Your task to perform on an android device: Go to network settings Image 0: 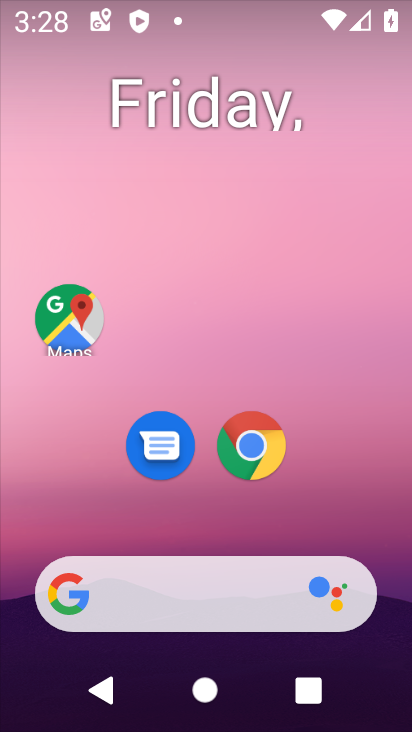
Step 0: click (250, 3)
Your task to perform on an android device: Go to network settings Image 1: 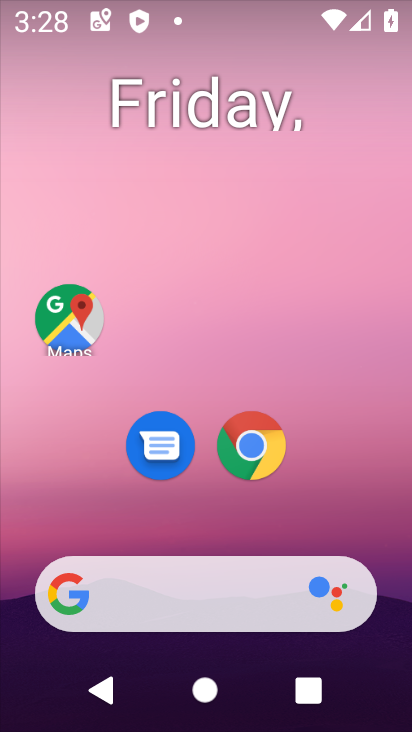
Step 1: click (72, 340)
Your task to perform on an android device: Go to network settings Image 2: 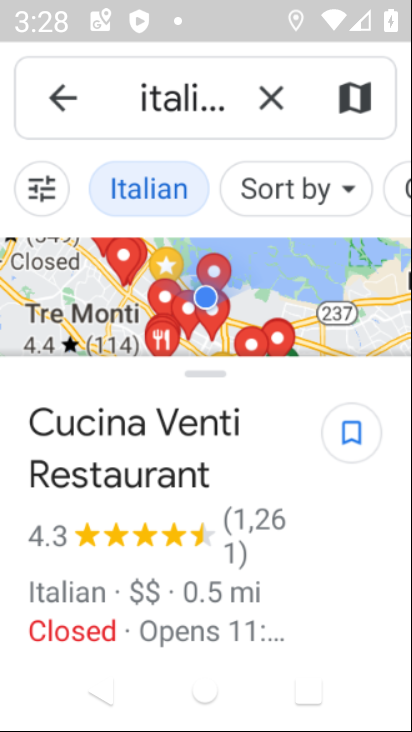
Step 2: drag from (220, 473) to (234, 23)
Your task to perform on an android device: Go to network settings Image 3: 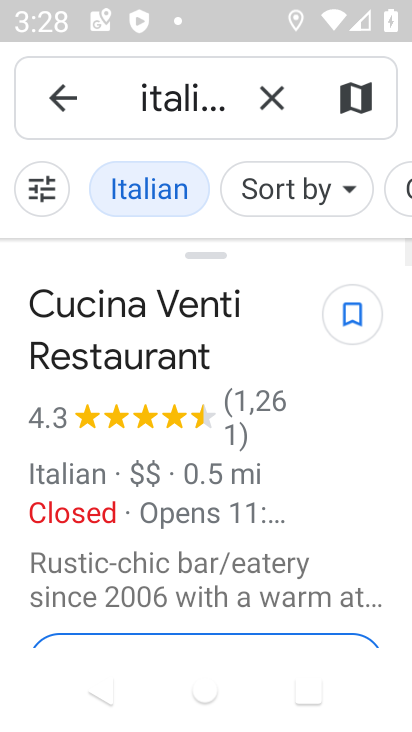
Step 3: click (251, 123)
Your task to perform on an android device: Go to network settings Image 4: 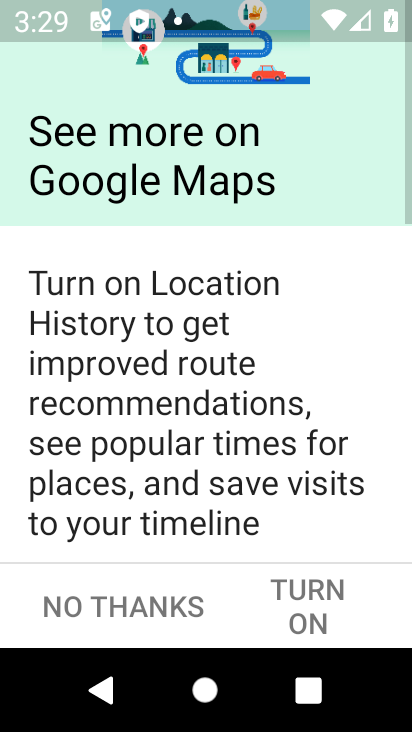
Step 4: press home button
Your task to perform on an android device: Go to network settings Image 5: 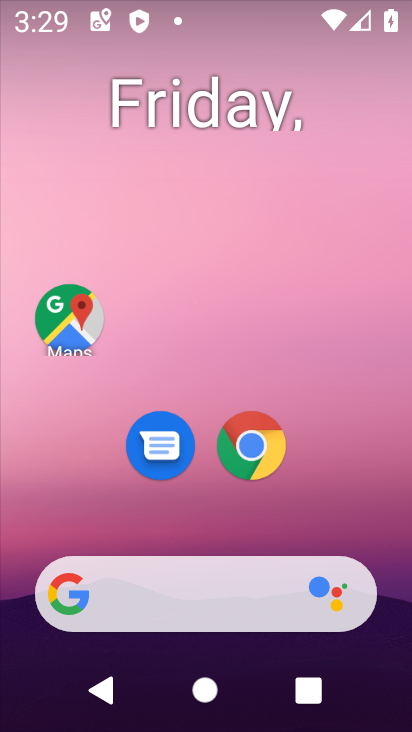
Step 5: drag from (195, 522) to (181, 6)
Your task to perform on an android device: Go to network settings Image 6: 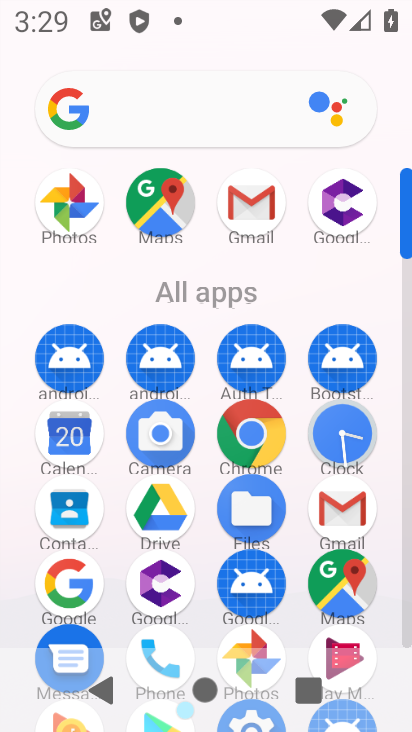
Step 6: drag from (215, 590) to (269, 74)
Your task to perform on an android device: Go to network settings Image 7: 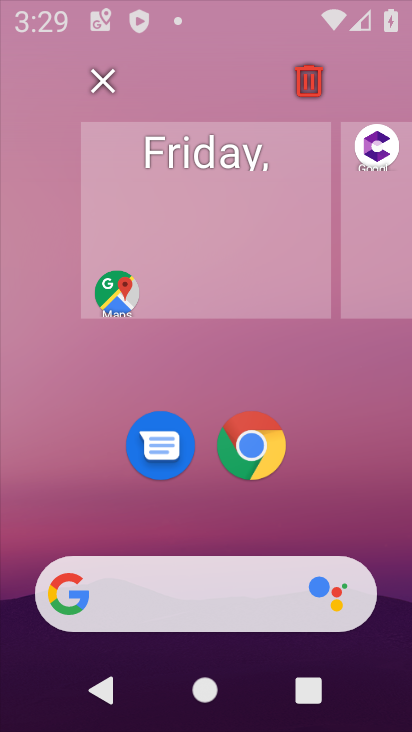
Step 7: drag from (198, 589) to (239, 197)
Your task to perform on an android device: Go to network settings Image 8: 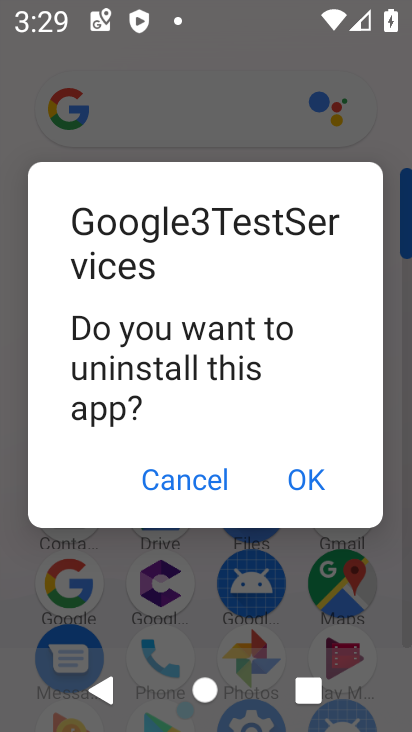
Step 8: click (203, 475)
Your task to perform on an android device: Go to network settings Image 9: 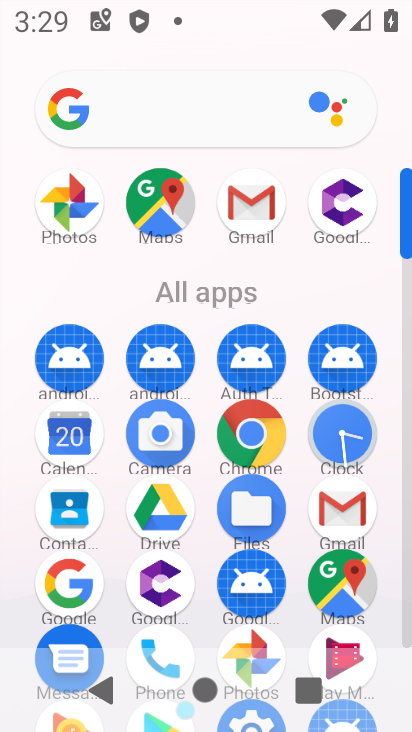
Step 9: drag from (206, 628) to (237, 242)
Your task to perform on an android device: Go to network settings Image 10: 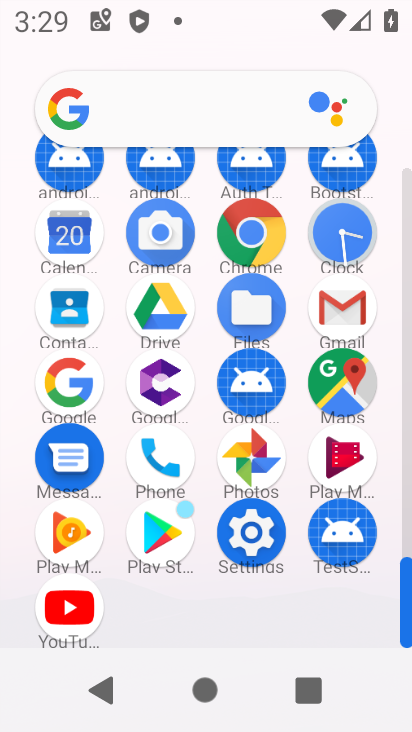
Step 10: click (260, 528)
Your task to perform on an android device: Go to network settings Image 11: 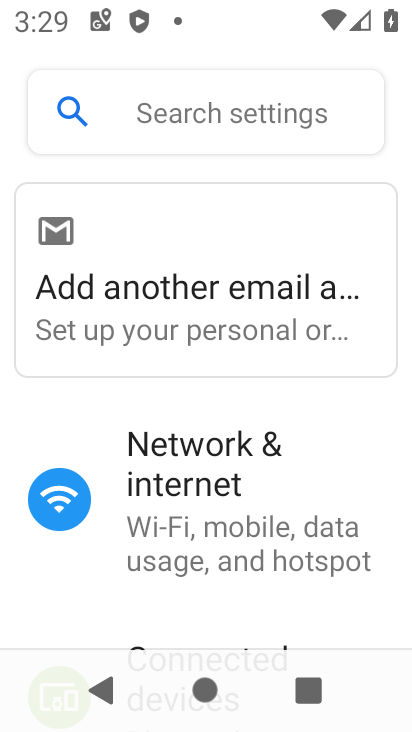
Step 11: click (231, 471)
Your task to perform on an android device: Go to network settings Image 12: 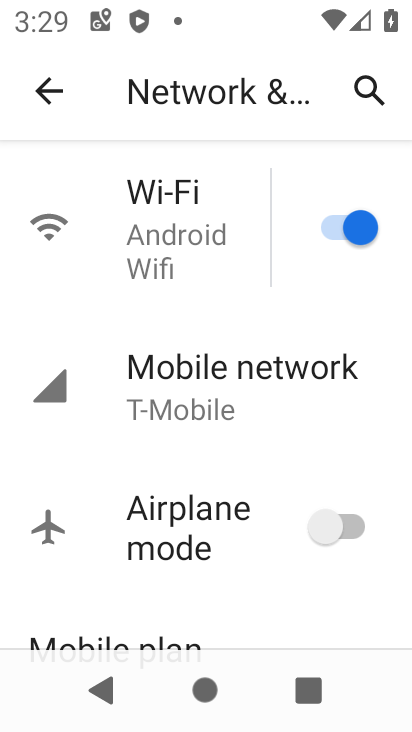
Step 12: task complete